Your task to perform on an android device: What is the news today? Image 0: 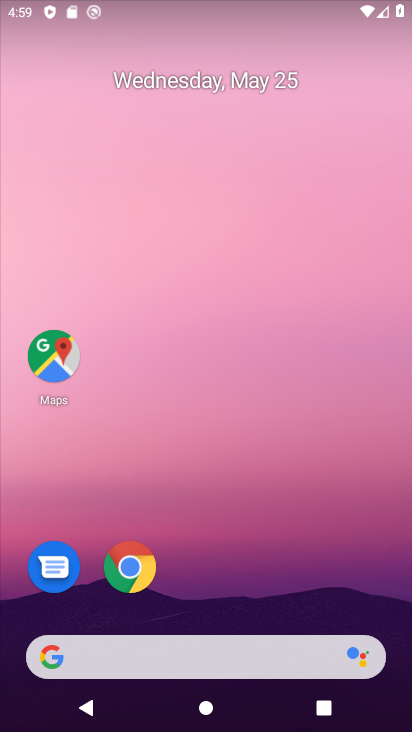
Step 0: drag from (278, 550) to (240, 31)
Your task to perform on an android device: What is the news today? Image 1: 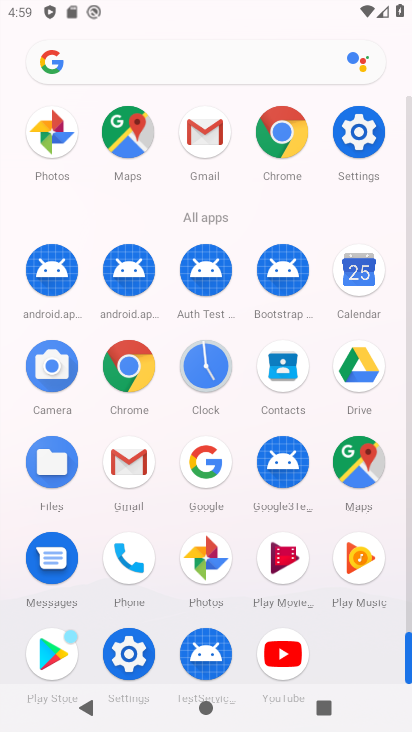
Step 1: drag from (4, 526) to (5, 213)
Your task to perform on an android device: What is the news today? Image 2: 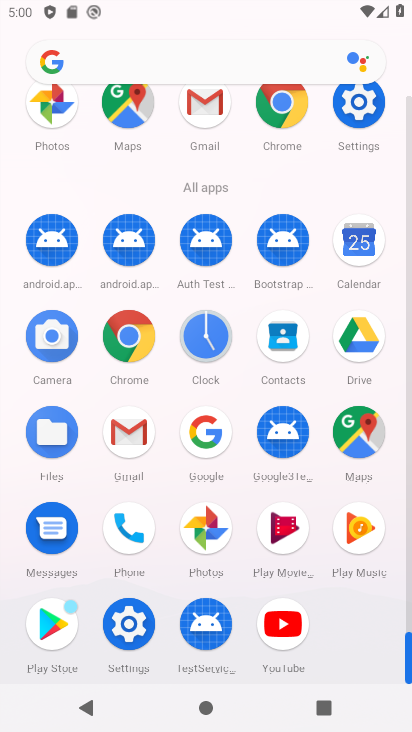
Step 2: click (132, 334)
Your task to perform on an android device: What is the news today? Image 3: 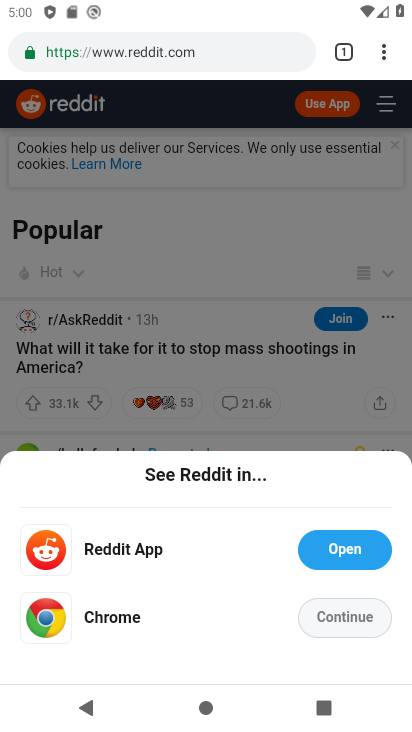
Step 3: click (154, 47)
Your task to perform on an android device: What is the news today? Image 4: 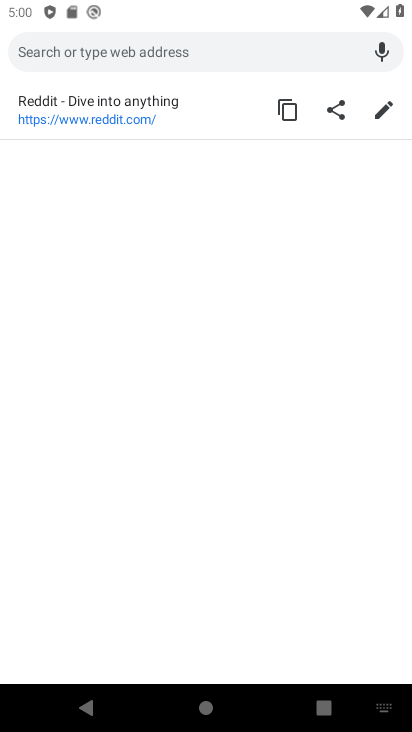
Step 4: type "What is the news today?"
Your task to perform on an android device: What is the news today? Image 5: 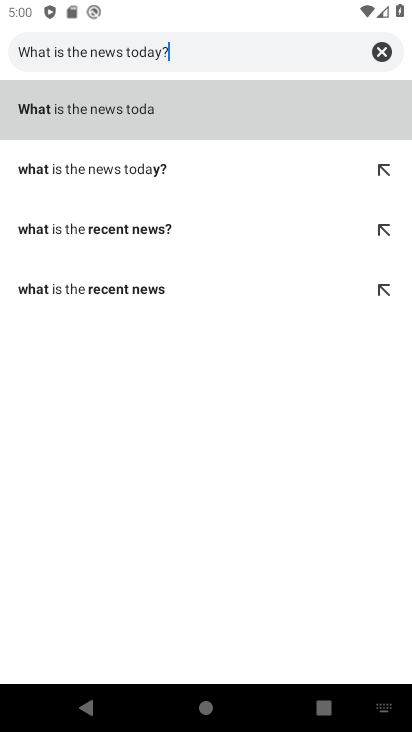
Step 5: type ""
Your task to perform on an android device: What is the news today? Image 6: 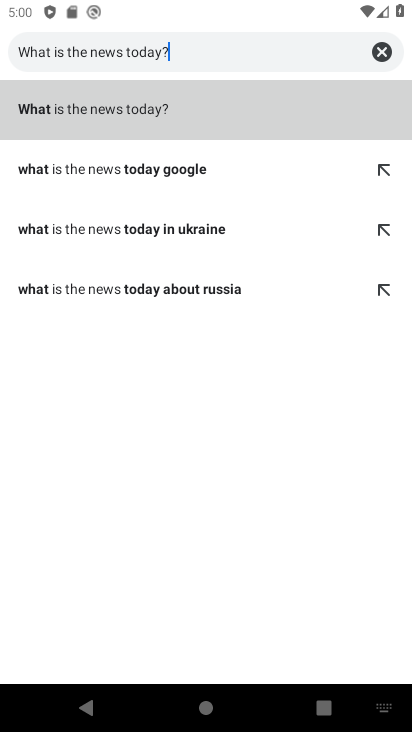
Step 6: click (182, 121)
Your task to perform on an android device: What is the news today? Image 7: 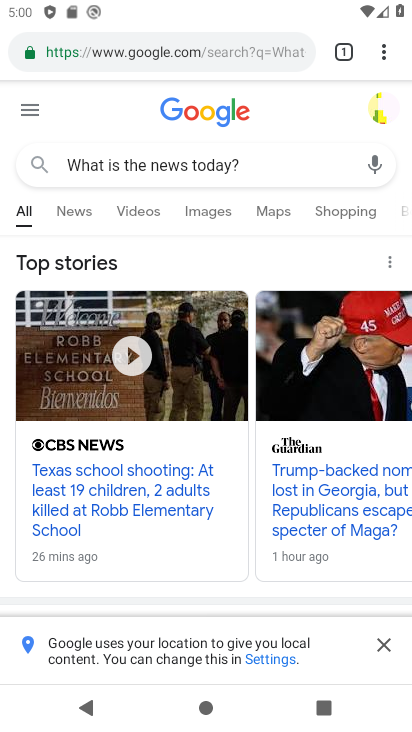
Step 7: task complete